Your task to perform on an android device: toggle notifications settings in the gmail app Image 0: 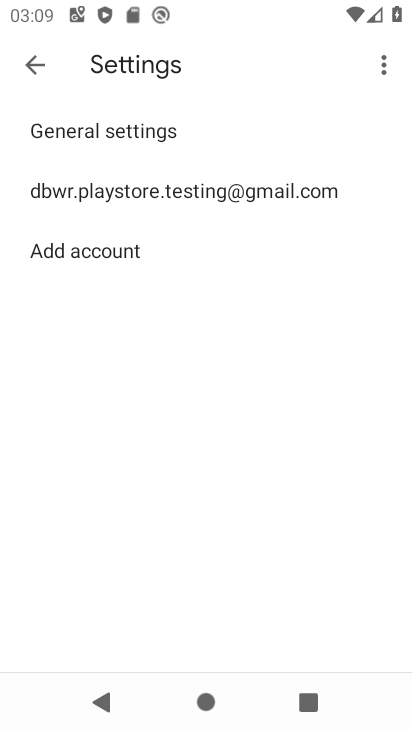
Step 0: click (82, 133)
Your task to perform on an android device: toggle notifications settings in the gmail app Image 1: 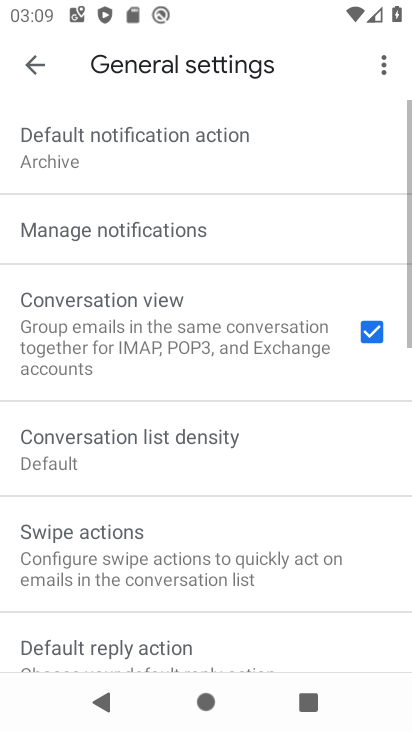
Step 1: click (149, 230)
Your task to perform on an android device: toggle notifications settings in the gmail app Image 2: 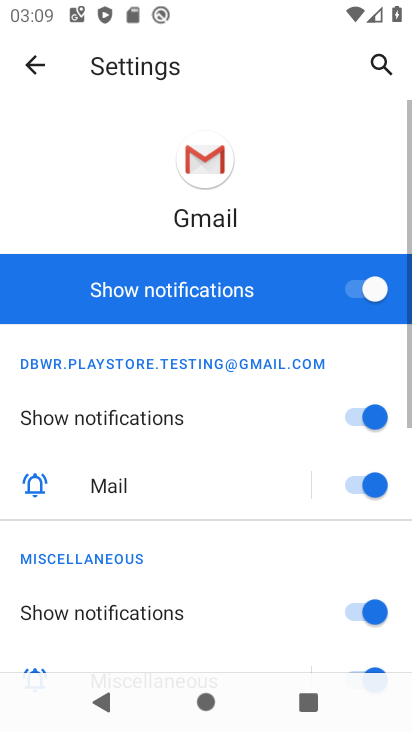
Step 2: click (350, 275)
Your task to perform on an android device: toggle notifications settings in the gmail app Image 3: 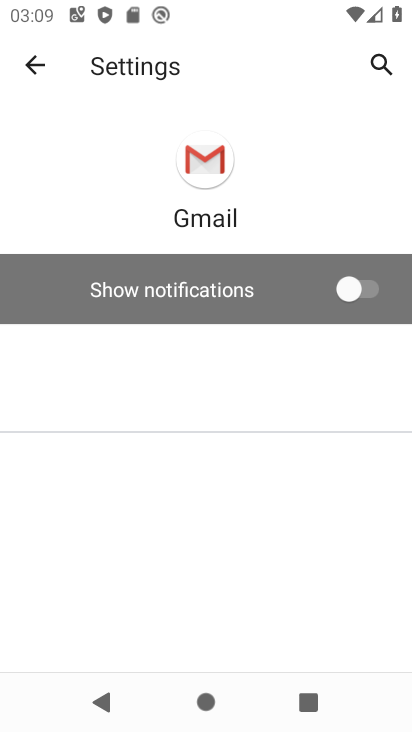
Step 3: task complete